Your task to perform on an android device: toggle improve location accuracy Image 0: 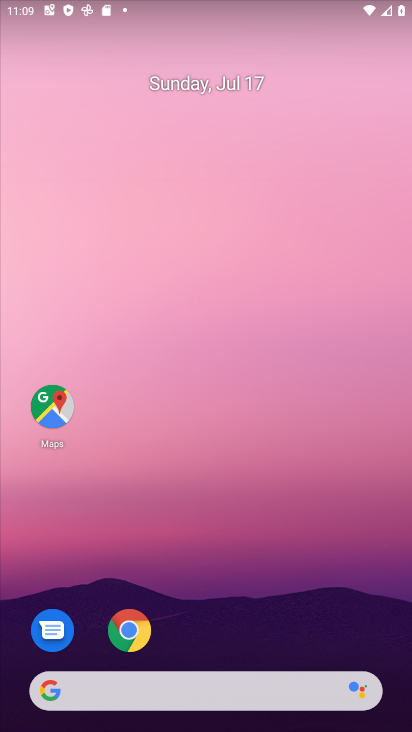
Step 0: drag from (312, 628) to (408, 151)
Your task to perform on an android device: toggle improve location accuracy Image 1: 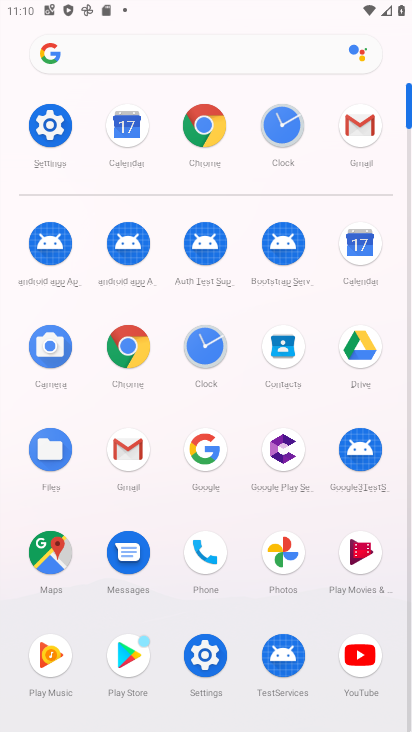
Step 1: click (211, 656)
Your task to perform on an android device: toggle improve location accuracy Image 2: 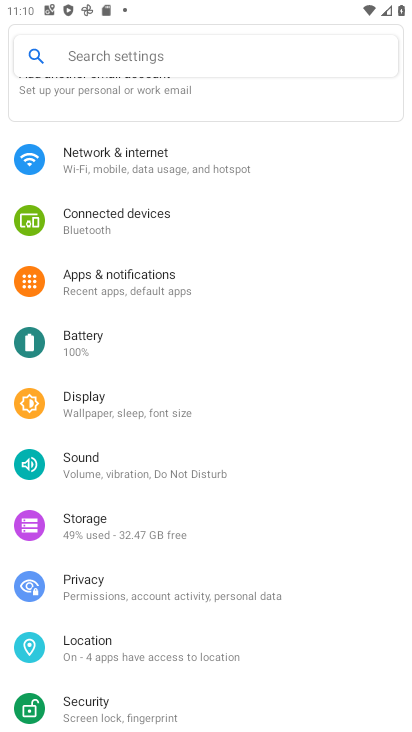
Step 2: click (150, 625)
Your task to perform on an android device: toggle improve location accuracy Image 3: 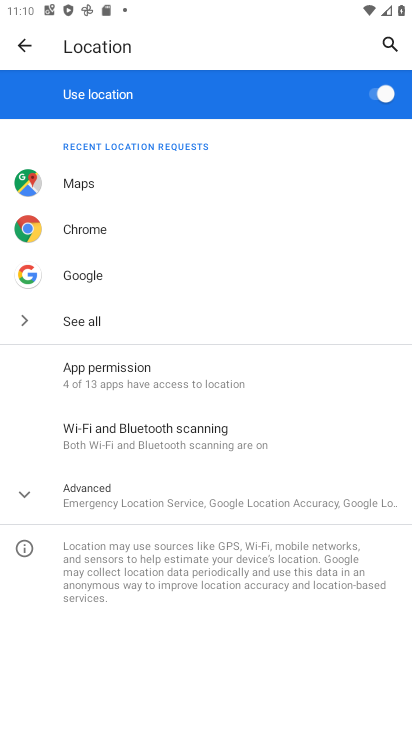
Step 3: click (225, 479)
Your task to perform on an android device: toggle improve location accuracy Image 4: 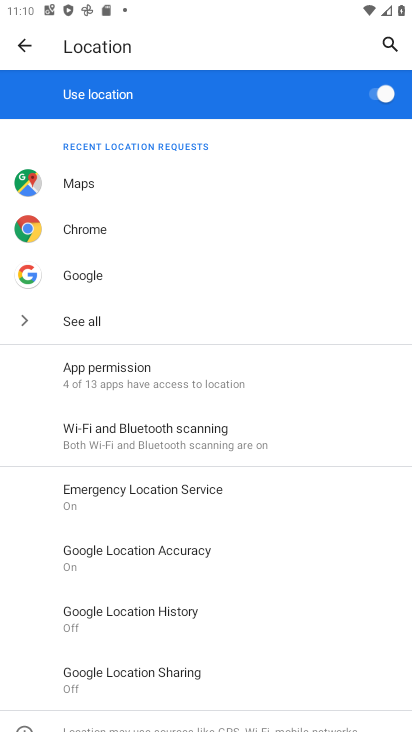
Step 4: click (216, 537)
Your task to perform on an android device: toggle improve location accuracy Image 5: 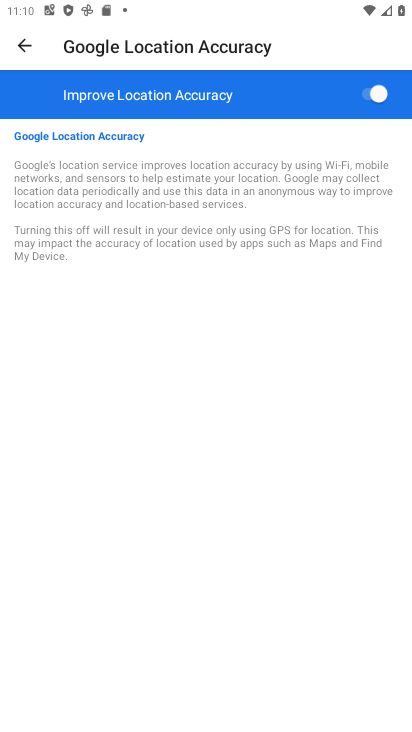
Step 5: task complete